Your task to perform on an android device: check out phone information Image 0: 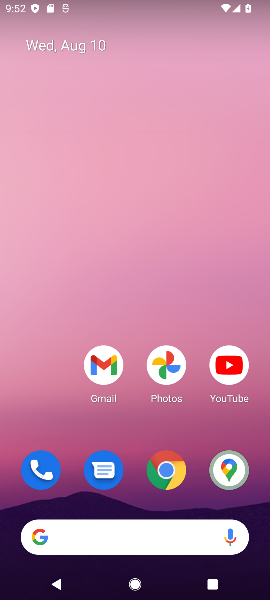
Step 0: drag from (129, 484) to (139, 90)
Your task to perform on an android device: check out phone information Image 1: 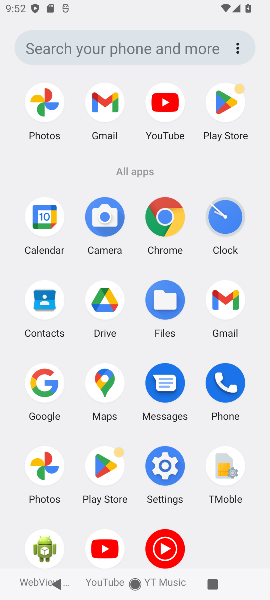
Step 1: click (163, 469)
Your task to perform on an android device: check out phone information Image 2: 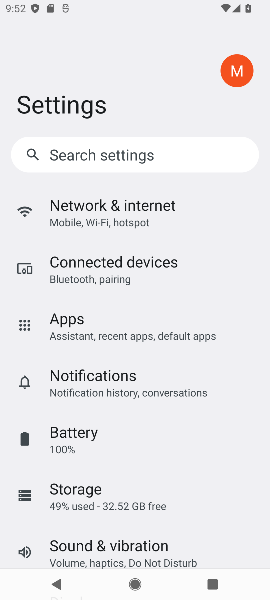
Step 2: drag from (212, 465) to (182, 127)
Your task to perform on an android device: check out phone information Image 3: 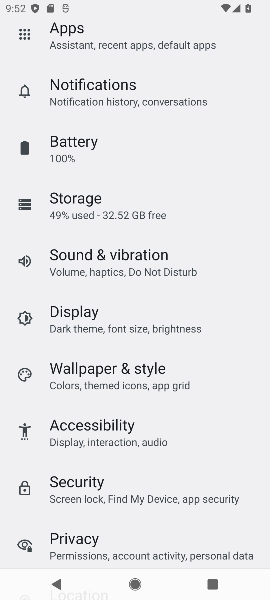
Step 3: drag from (133, 549) to (144, 200)
Your task to perform on an android device: check out phone information Image 4: 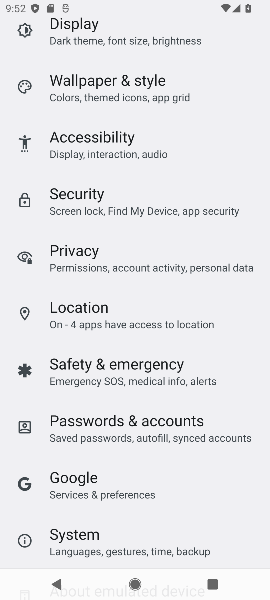
Step 4: drag from (149, 529) to (165, 116)
Your task to perform on an android device: check out phone information Image 5: 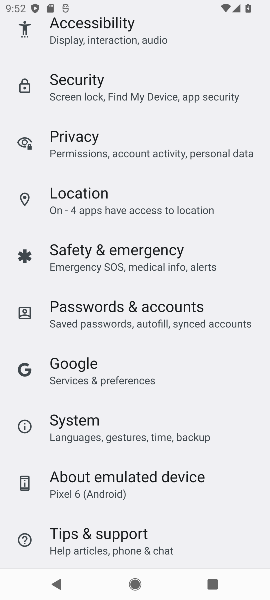
Step 5: drag from (191, 523) to (234, 132)
Your task to perform on an android device: check out phone information Image 6: 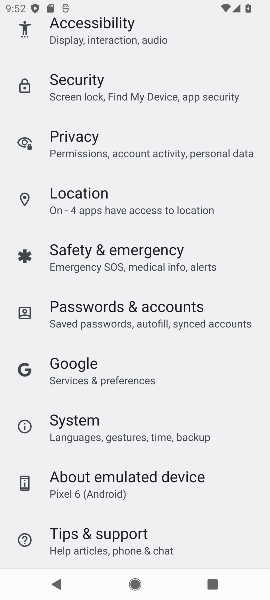
Step 6: click (106, 553)
Your task to perform on an android device: check out phone information Image 7: 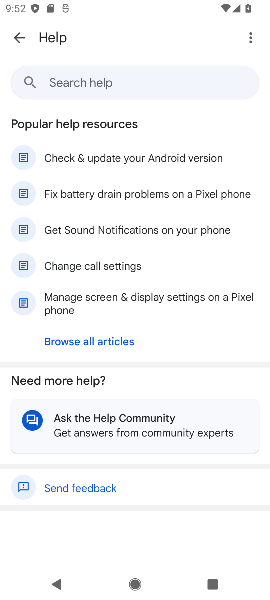
Step 7: task complete